Your task to perform on an android device: turn on priority inbox in the gmail app Image 0: 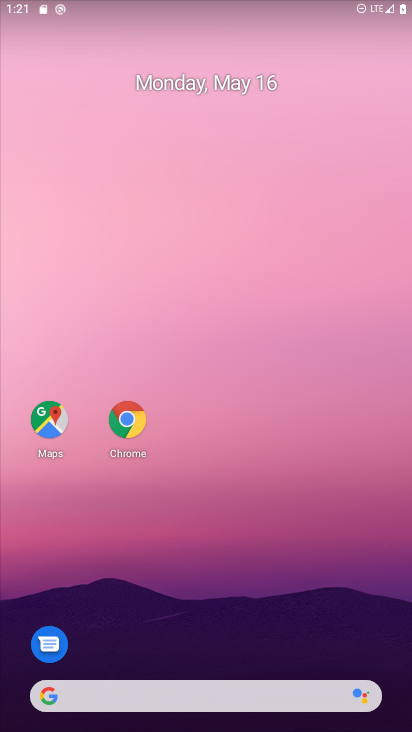
Step 0: drag from (170, 627) to (228, 282)
Your task to perform on an android device: turn on priority inbox in the gmail app Image 1: 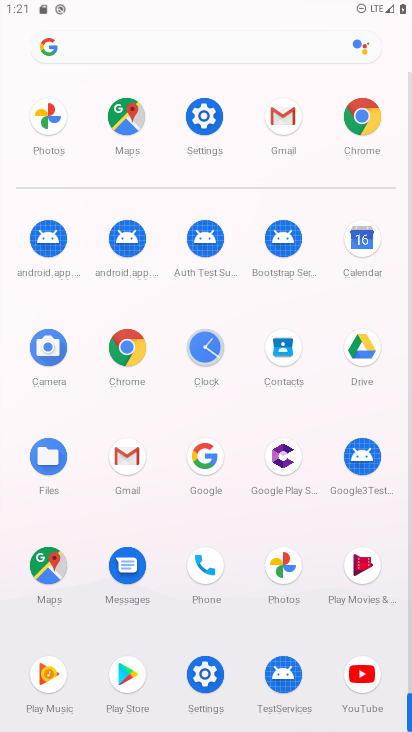
Step 1: click (127, 446)
Your task to perform on an android device: turn on priority inbox in the gmail app Image 2: 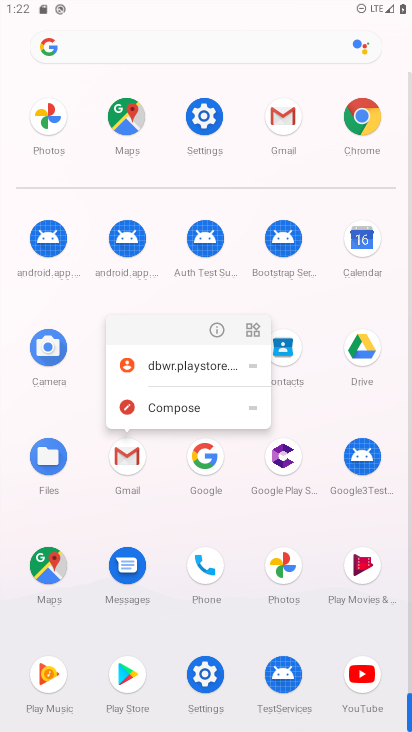
Step 2: click (154, 368)
Your task to perform on an android device: turn on priority inbox in the gmail app Image 3: 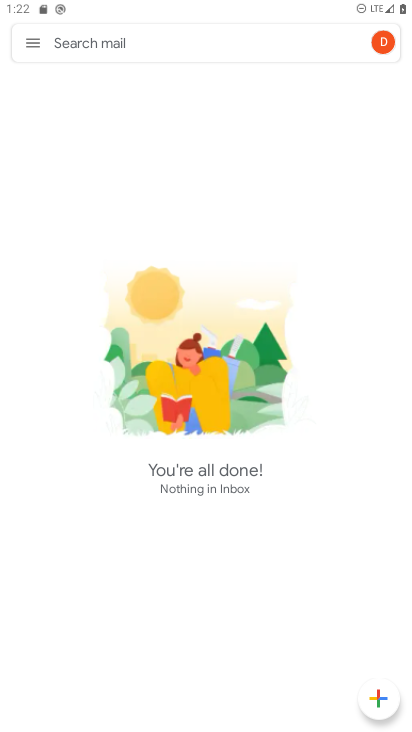
Step 3: click (39, 34)
Your task to perform on an android device: turn on priority inbox in the gmail app Image 4: 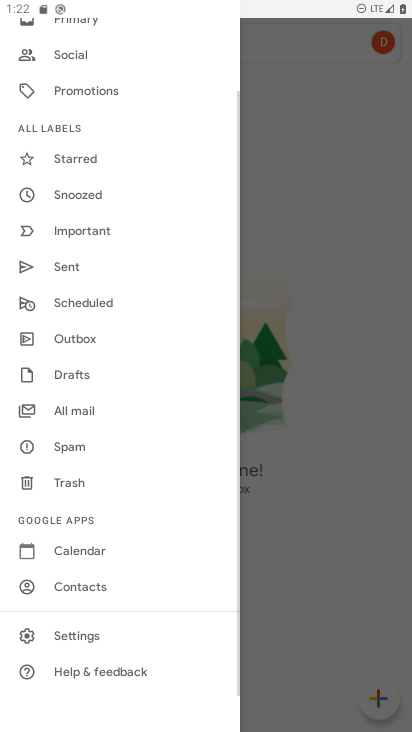
Step 4: drag from (112, 452) to (154, 226)
Your task to perform on an android device: turn on priority inbox in the gmail app Image 5: 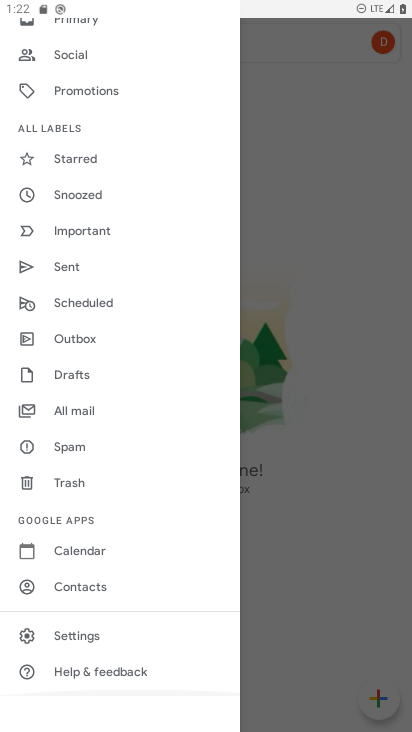
Step 5: drag from (143, 196) to (181, 731)
Your task to perform on an android device: turn on priority inbox in the gmail app Image 6: 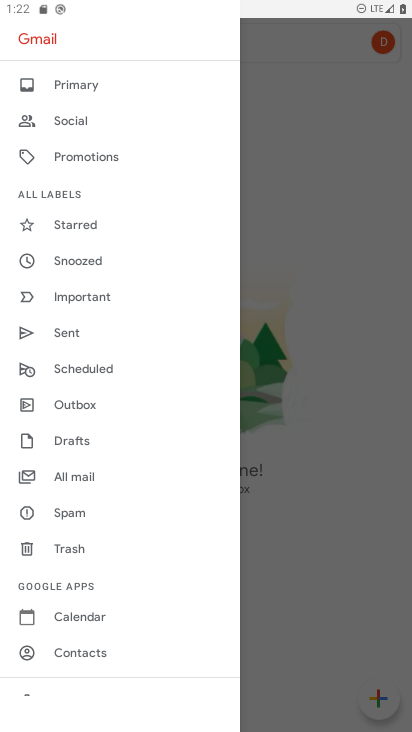
Step 6: drag from (127, 672) to (81, 44)
Your task to perform on an android device: turn on priority inbox in the gmail app Image 7: 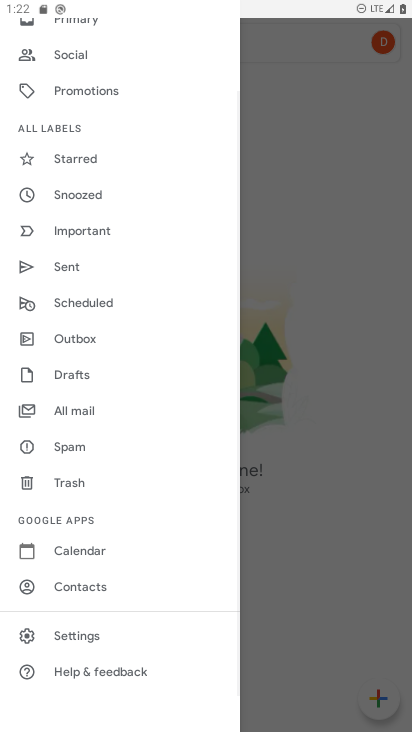
Step 7: click (49, 633)
Your task to perform on an android device: turn on priority inbox in the gmail app Image 8: 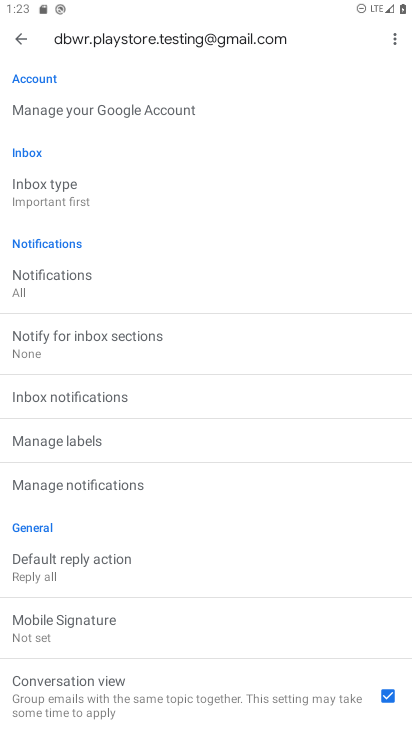
Step 8: click (53, 183)
Your task to perform on an android device: turn on priority inbox in the gmail app Image 9: 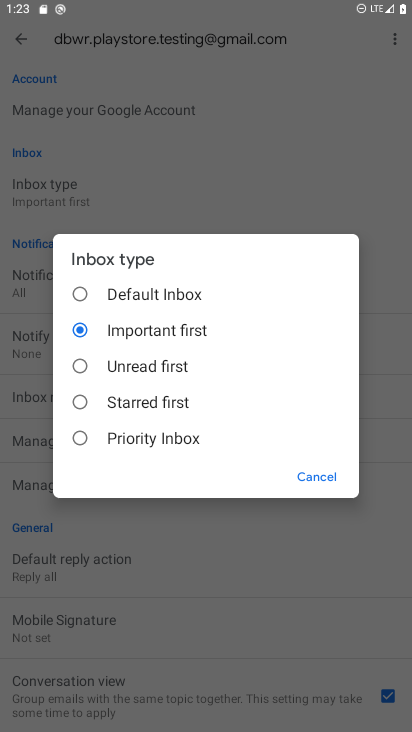
Step 9: click (80, 453)
Your task to perform on an android device: turn on priority inbox in the gmail app Image 10: 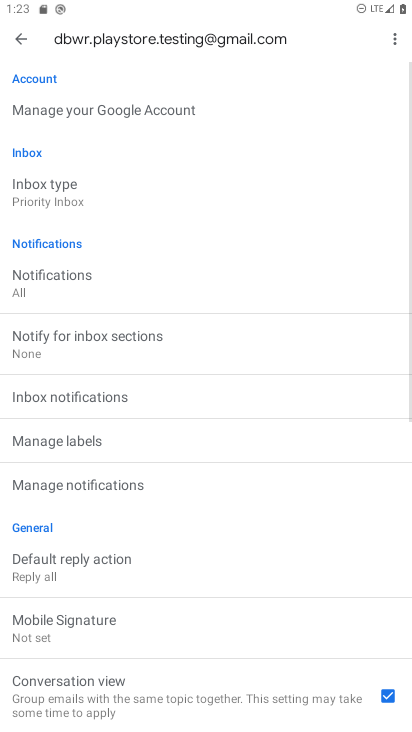
Step 10: task complete